Your task to perform on an android device: show emergency info Image 0: 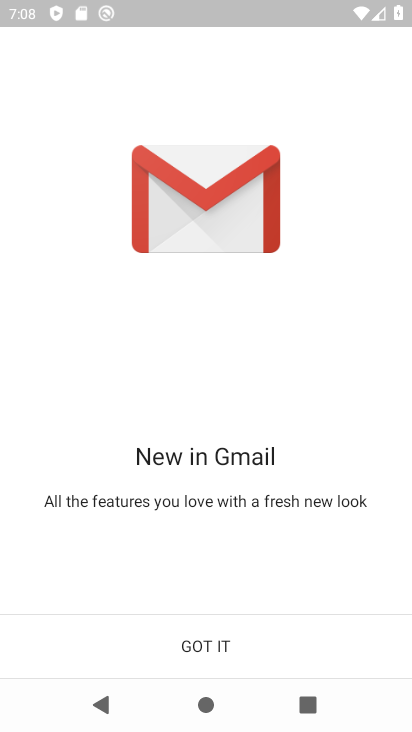
Step 0: click (260, 636)
Your task to perform on an android device: show emergency info Image 1: 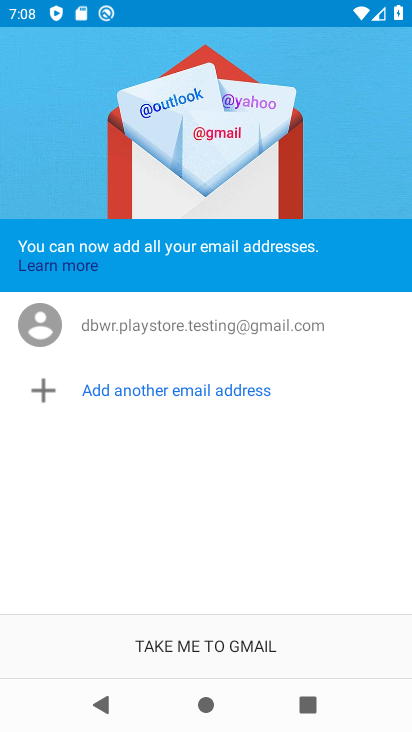
Step 1: click (225, 638)
Your task to perform on an android device: show emergency info Image 2: 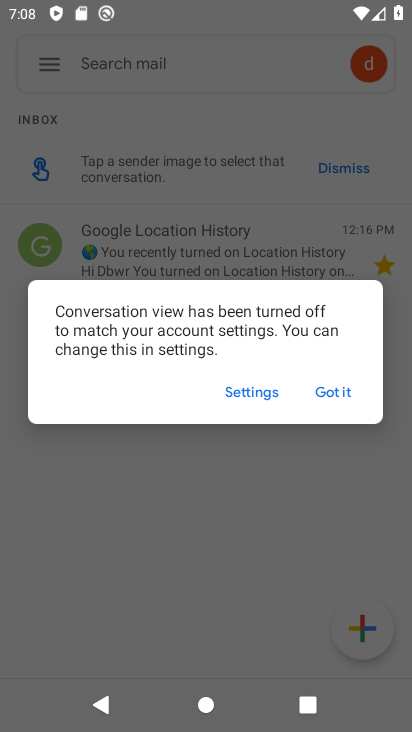
Step 2: press home button
Your task to perform on an android device: show emergency info Image 3: 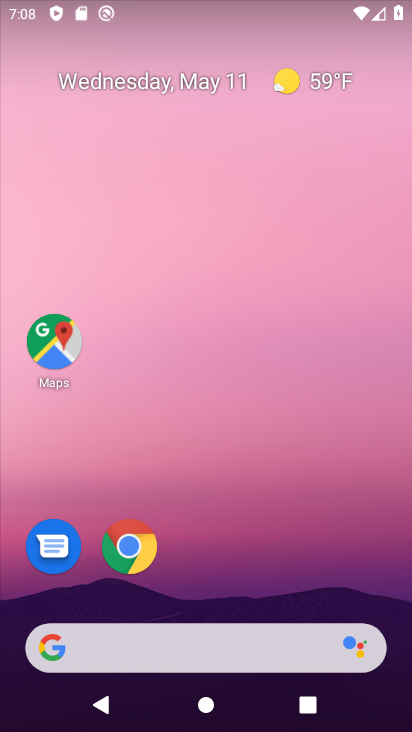
Step 3: drag from (371, 542) to (260, 91)
Your task to perform on an android device: show emergency info Image 4: 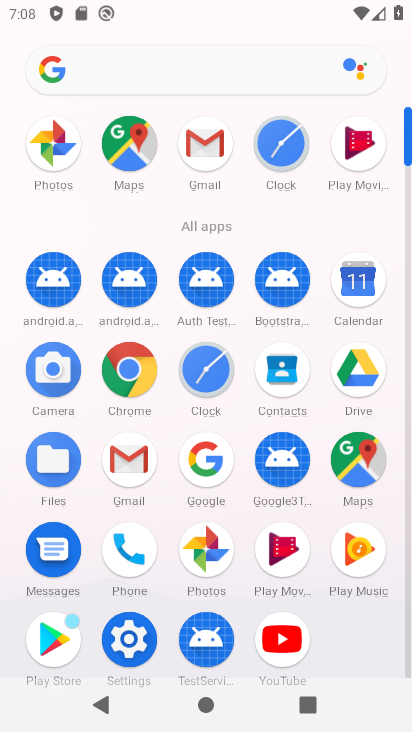
Step 4: click (134, 639)
Your task to perform on an android device: show emergency info Image 5: 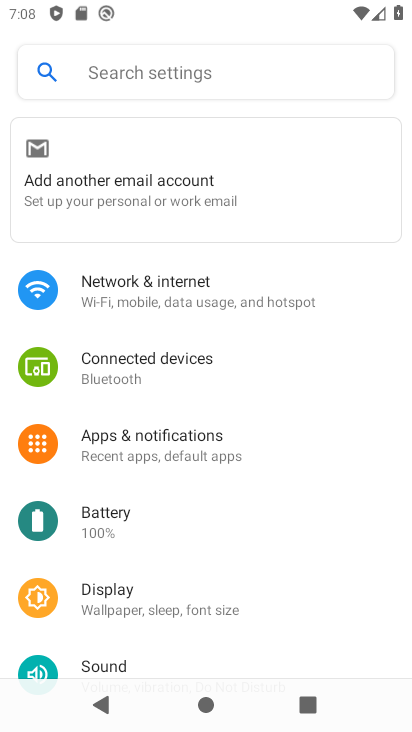
Step 5: drag from (261, 603) to (226, 221)
Your task to perform on an android device: show emergency info Image 6: 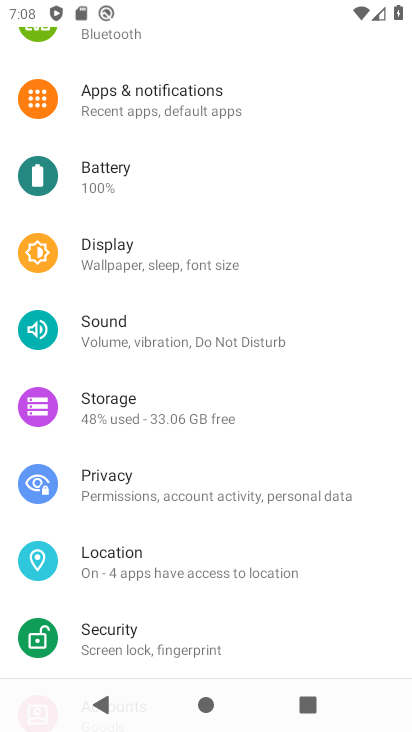
Step 6: drag from (259, 603) to (246, 146)
Your task to perform on an android device: show emergency info Image 7: 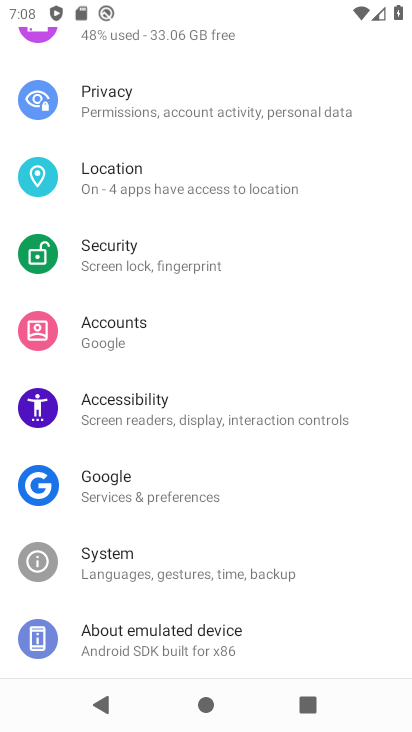
Step 7: drag from (264, 562) to (221, 127)
Your task to perform on an android device: show emergency info Image 8: 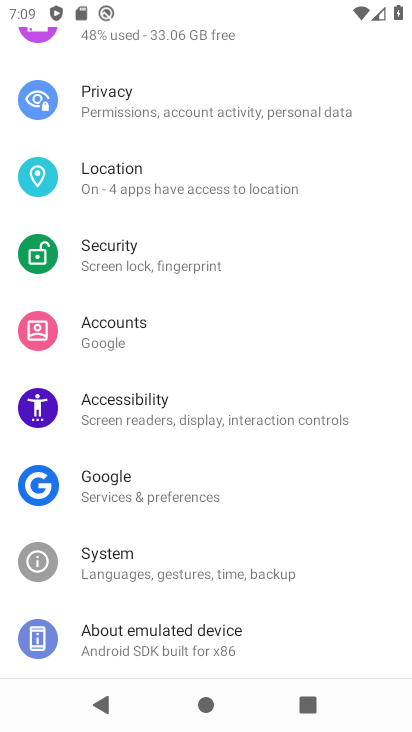
Step 8: click (151, 624)
Your task to perform on an android device: show emergency info Image 9: 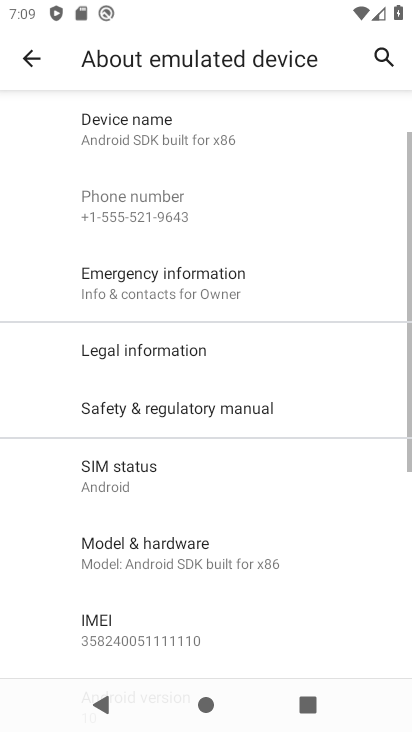
Step 9: click (198, 291)
Your task to perform on an android device: show emergency info Image 10: 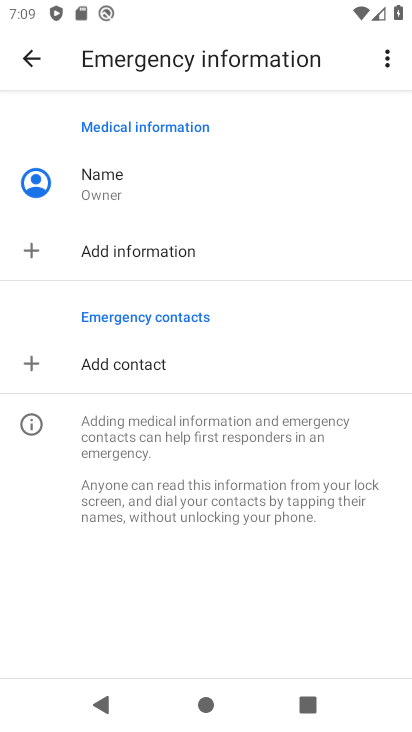
Step 10: task complete